Your task to perform on an android device: turn off improve location accuracy Image 0: 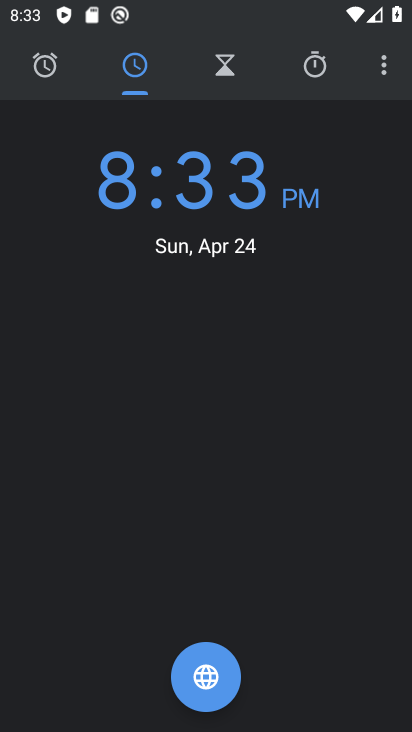
Step 0: press back button
Your task to perform on an android device: turn off improve location accuracy Image 1: 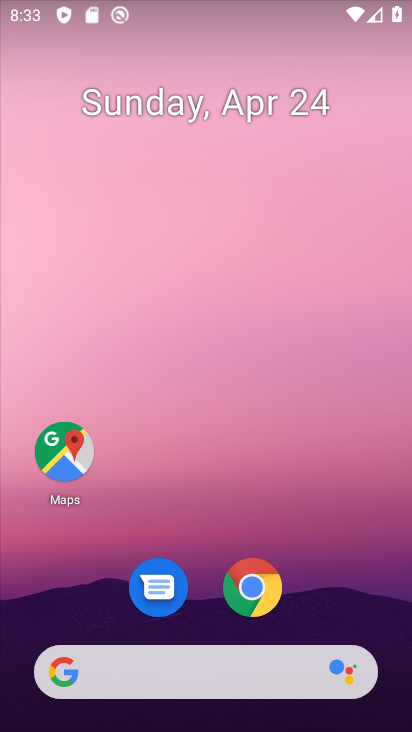
Step 1: drag from (207, 575) to (254, 126)
Your task to perform on an android device: turn off improve location accuracy Image 2: 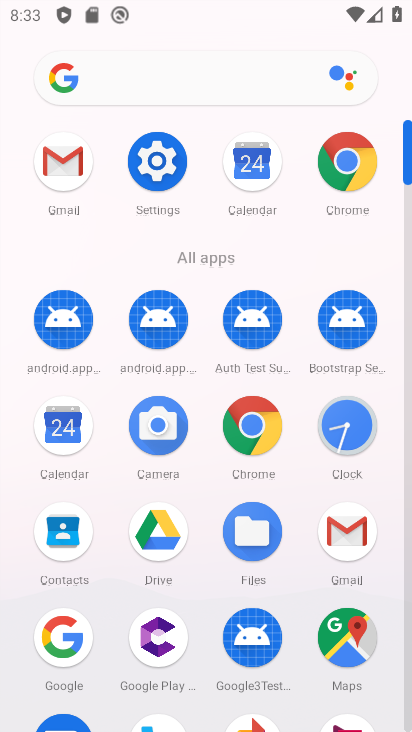
Step 2: click (149, 152)
Your task to perform on an android device: turn off improve location accuracy Image 3: 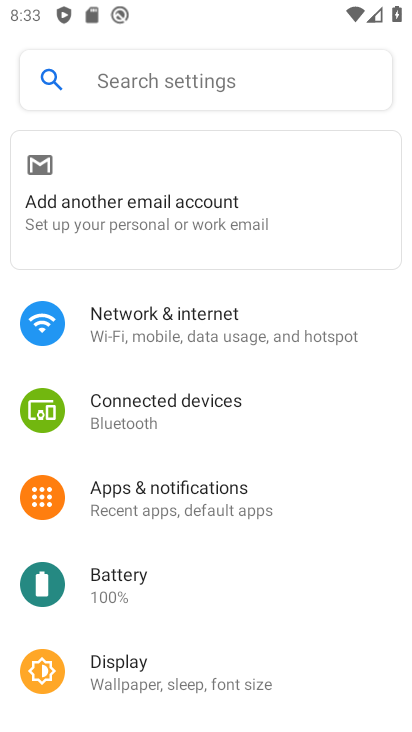
Step 3: drag from (169, 664) to (268, 90)
Your task to perform on an android device: turn off improve location accuracy Image 4: 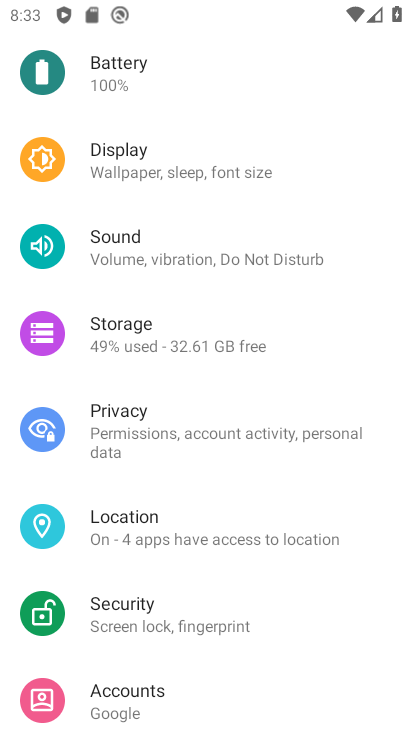
Step 4: click (107, 532)
Your task to perform on an android device: turn off improve location accuracy Image 5: 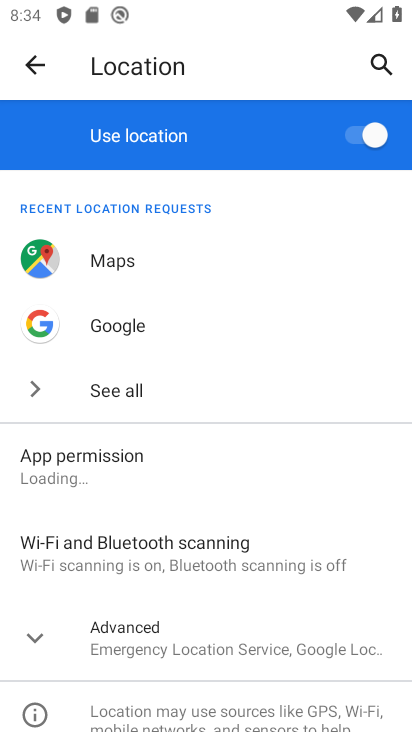
Step 5: click (158, 627)
Your task to perform on an android device: turn off improve location accuracy Image 6: 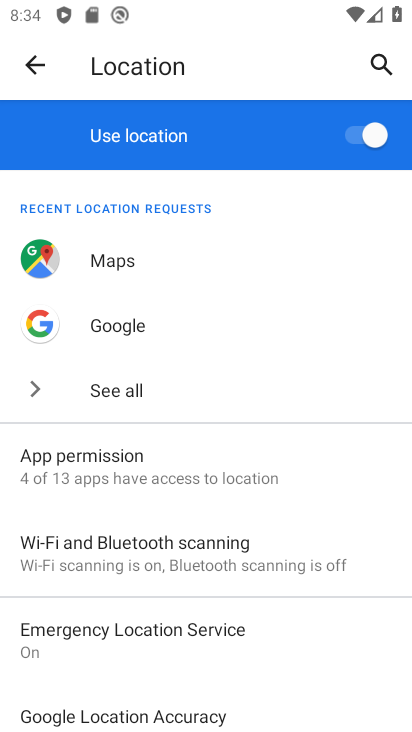
Step 6: drag from (158, 682) to (283, 193)
Your task to perform on an android device: turn off improve location accuracy Image 7: 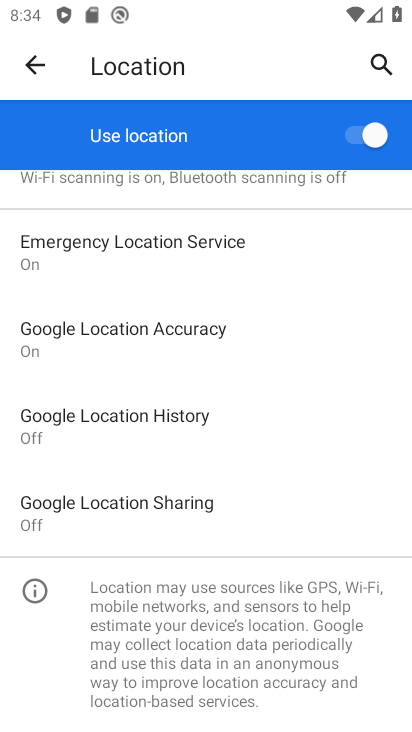
Step 7: click (153, 334)
Your task to perform on an android device: turn off improve location accuracy Image 8: 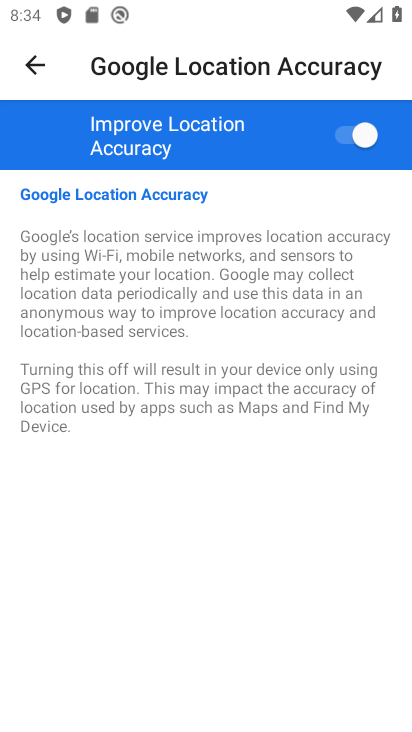
Step 8: click (371, 131)
Your task to perform on an android device: turn off improve location accuracy Image 9: 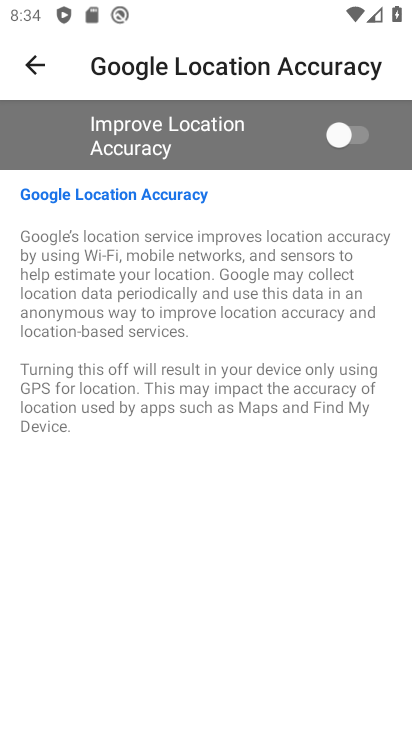
Step 9: task complete